Your task to perform on an android device: turn off airplane mode Image 0: 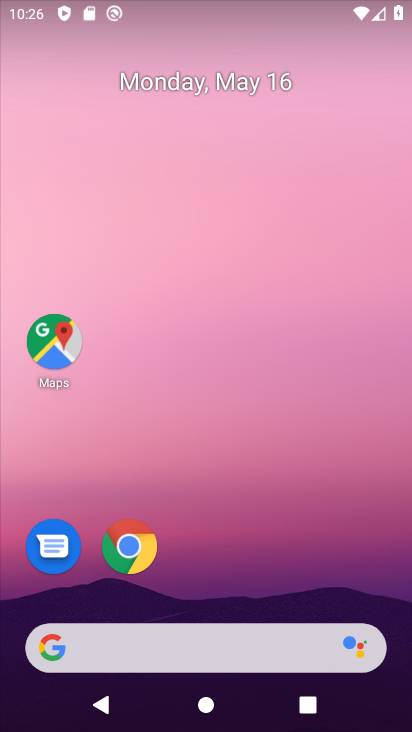
Step 0: drag from (199, 568) to (284, 108)
Your task to perform on an android device: turn off airplane mode Image 1: 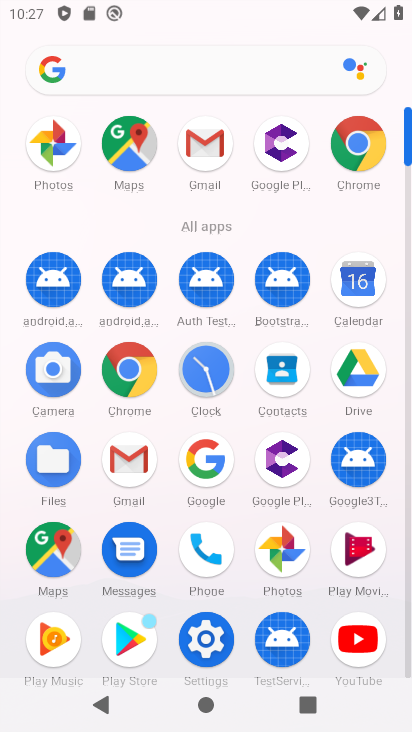
Step 1: drag from (180, 633) to (221, 385)
Your task to perform on an android device: turn off airplane mode Image 2: 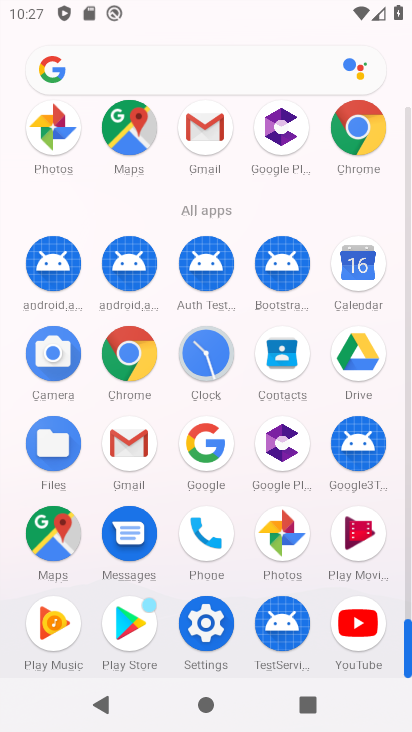
Step 2: click (202, 625)
Your task to perform on an android device: turn off airplane mode Image 3: 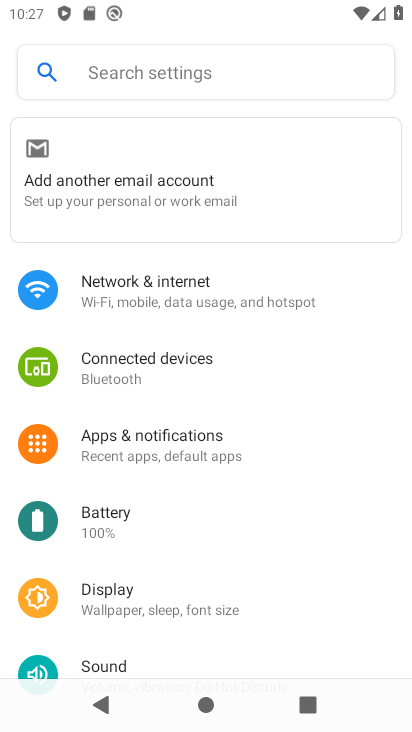
Step 3: click (159, 305)
Your task to perform on an android device: turn off airplane mode Image 4: 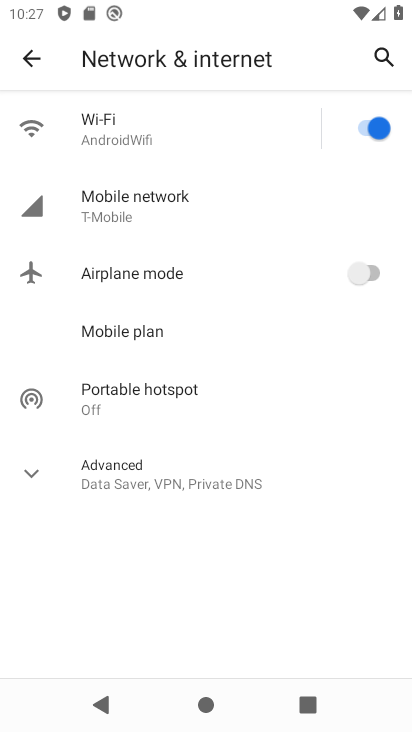
Step 4: task complete